Your task to perform on an android device: read, delete, or share a saved page in the chrome app Image 0: 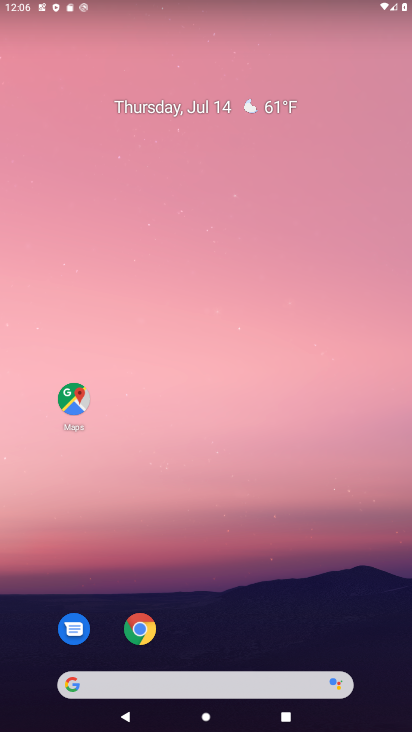
Step 0: click (140, 626)
Your task to perform on an android device: read, delete, or share a saved page in the chrome app Image 1: 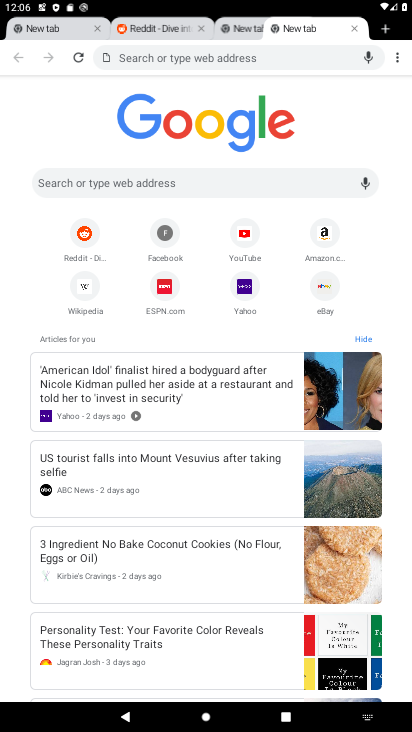
Step 1: click (394, 53)
Your task to perform on an android device: read, delete, or share a saved page in the chrome app Image 2: 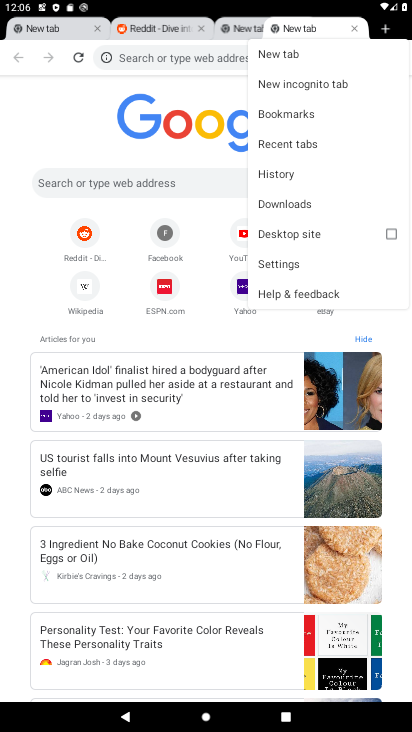
Step 2: click (268, 204)
Your task to perform on an android device: read, delete, or share a saved page in the chrome app Image 3: 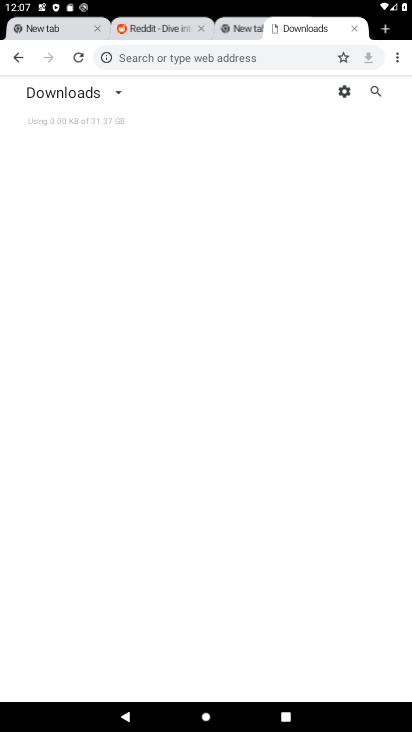
Step 3: task complete